Your task to perform on an android device: What's on my calendar tomorrow? Image 0: 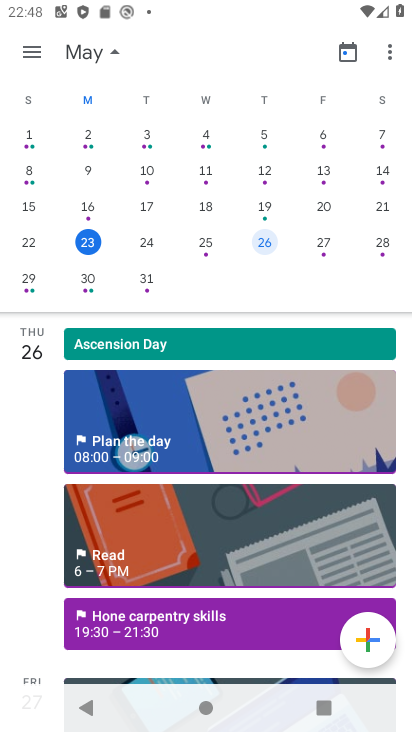
Step 0: drag from (201, 589) to (270, 78)
Your task to perform on an android device: What's on my calendar tomorrow? Image 1: 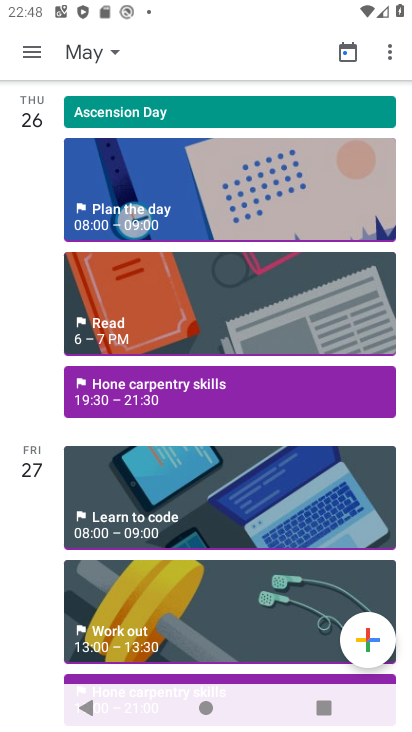
Step 1: drag from (242, 557) to (273, 386)
Your task to perform on an android device: What's on my calendar tomorrow? Image 2: 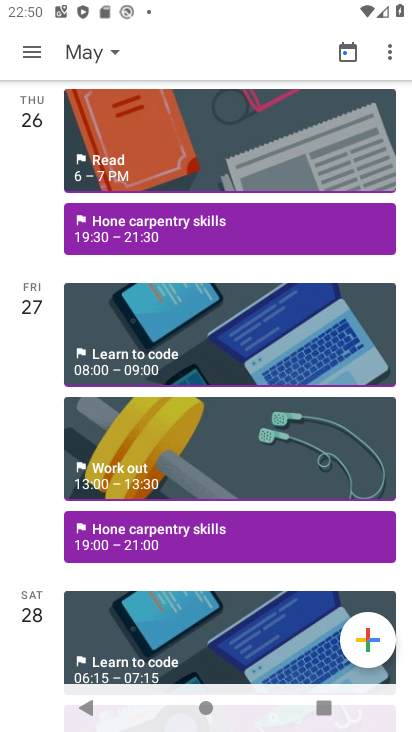
Step 2: click (106, 59)
Your task to perform on an android device: What's on my calendar tomorrow? Image 3: 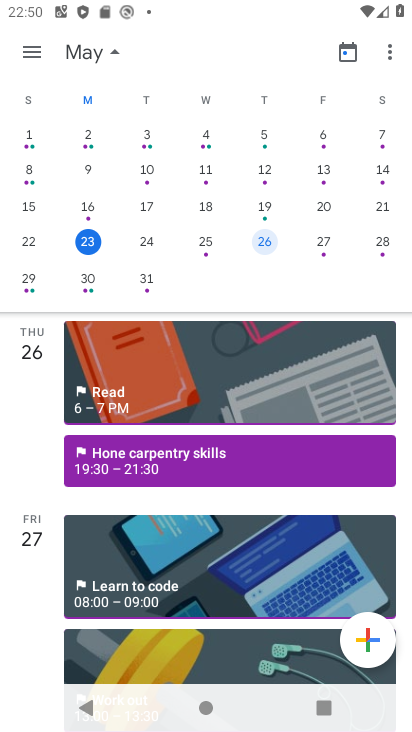
Step 3: click (152, 252)
Your task to perform on an android device: What's on my calendar tomorrow? Image 4: 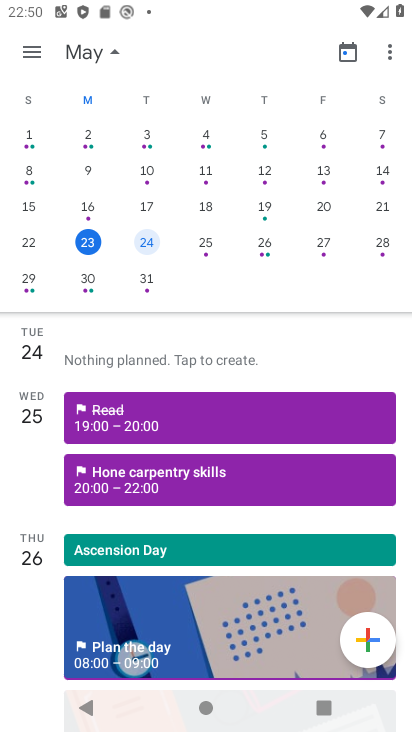
Step 4: task complete